Your task to perform on an android device: show emergency info Image 0: 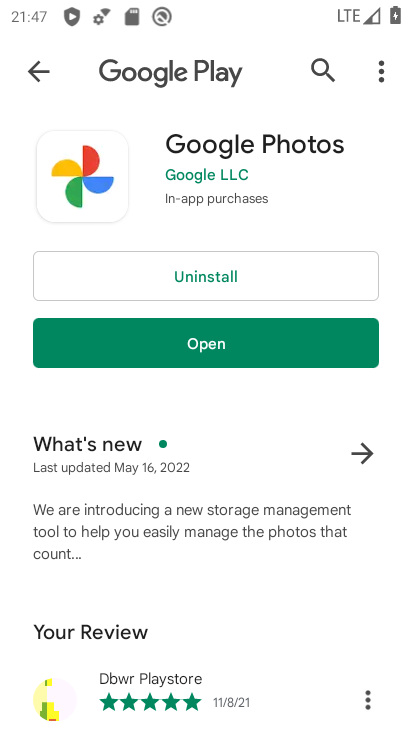
Step 0: press home button
Your task to perform on an android device: show emergency info Image 1: 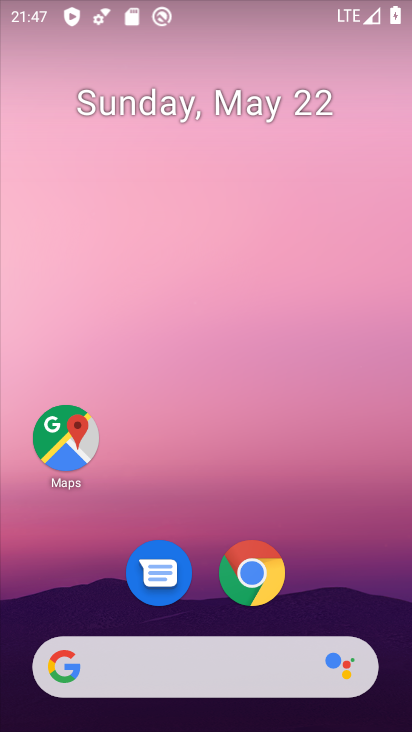
Step 1: drag from (374, 608) to (279, 23)
Your task to perform on an android device: show emergency info Image 2: 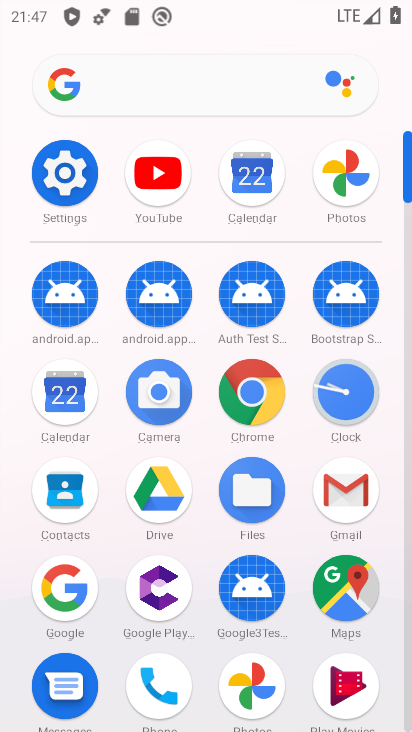
Step 2: click (66, 182)
Your task to perform on an android device: show emergency info Image 3: 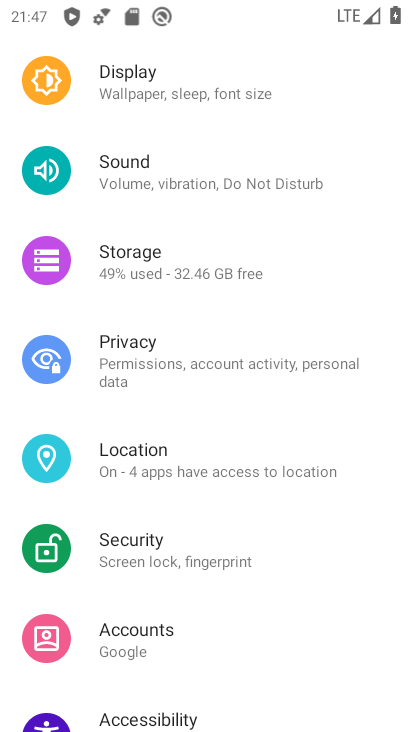
Step 3: drag from (301, 625) to (268, 121)
Your task to perform on an android device: show emergency info Image 4: 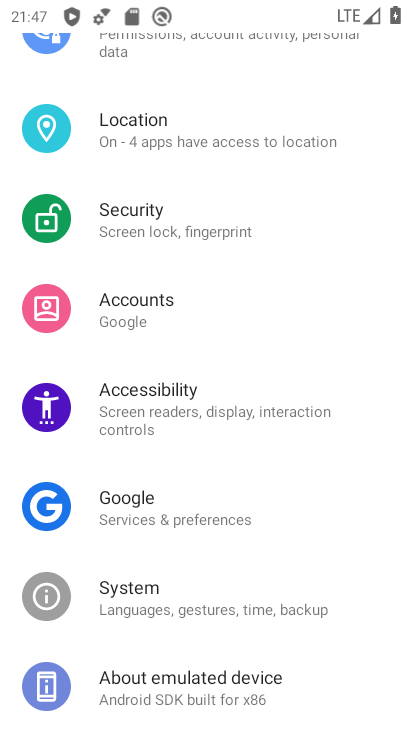
Step 4: click (217, 681)
Your task to perform on an android device: show emergency info Image 5: 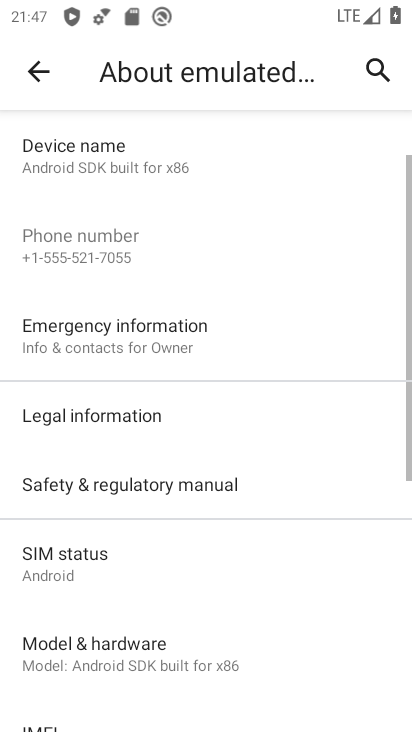
Step 5: click (139, 333)
Your task to perform on an android device: show emergency info Image 6: 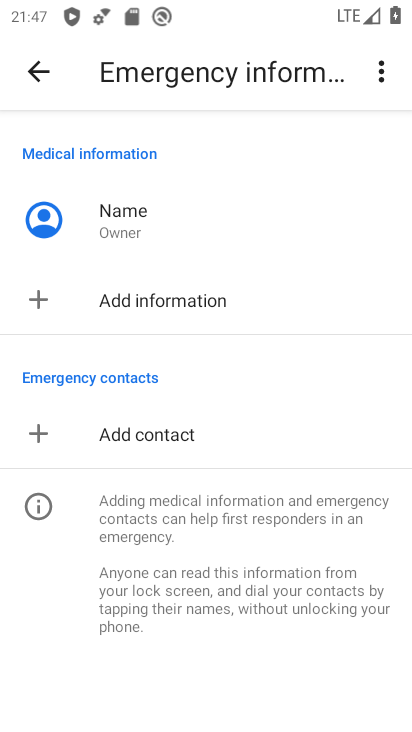
Step 6: task complete